Your task to perform on an android device: turn off notifications in google photos Image 0: 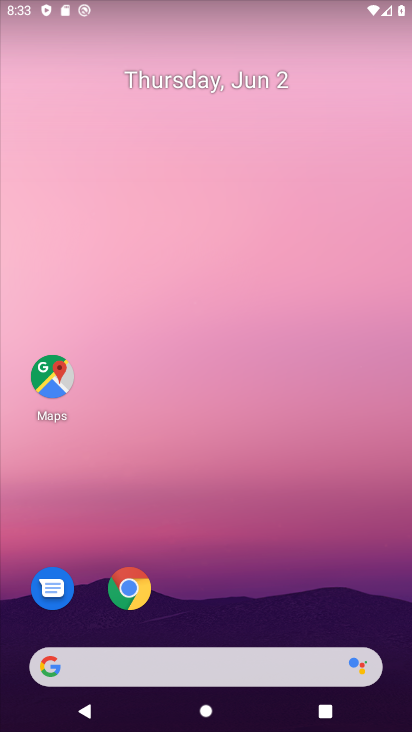
Step 0: drag from (249, 613) to (245, 281)
Your task to perform on an android device: turn off notifications in google photos Image 1: 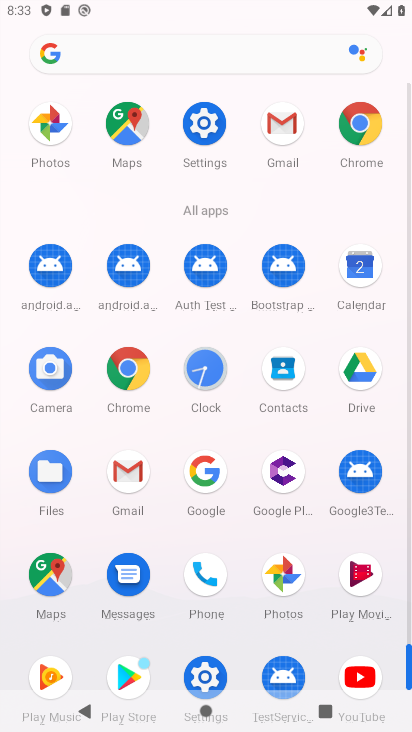
Step 1: click (274, 571)
Your task to perform on an android device: turn off notifications in google photos Image 2: 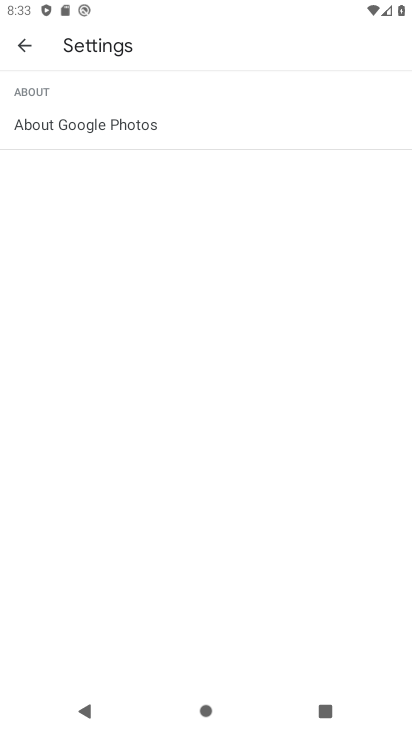
Step 2: click (14, 39)
Your task to perform on an android device: turn off notifications in google photos Image 3: 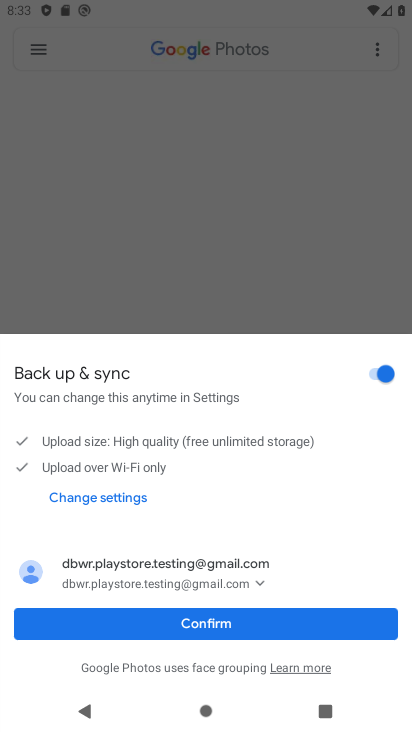
Step 3: click (30, 45)
Your task to perform on an android device: turn off notifications in google photos Image 4: 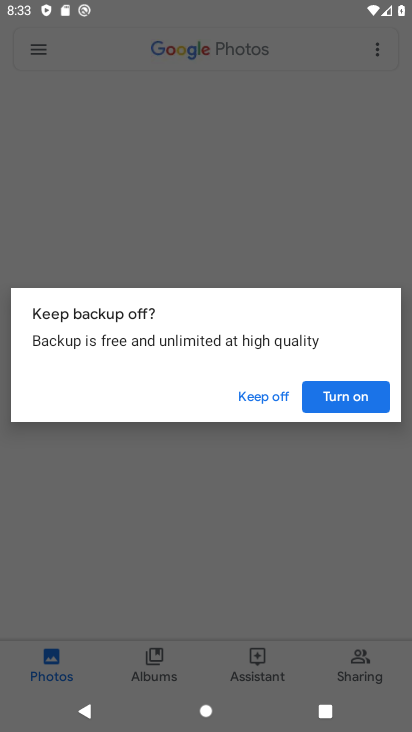
Step 4: click (334, 410)
Your task to perform on an android device: turn off notifications in google photos Image 5: 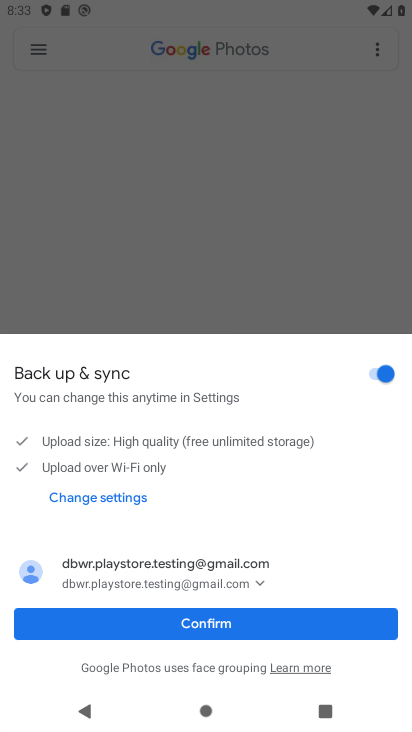
Step 5: click (272, 615)
Your task to perform on an android device: turn off notifications in google photos Image 6: 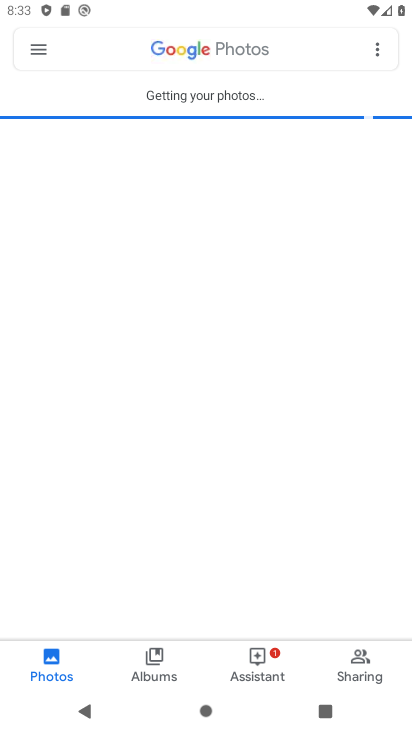
Step 6: click (33, 38)
Your task to perform on an android device: turn off notifications in google photos Image 7: 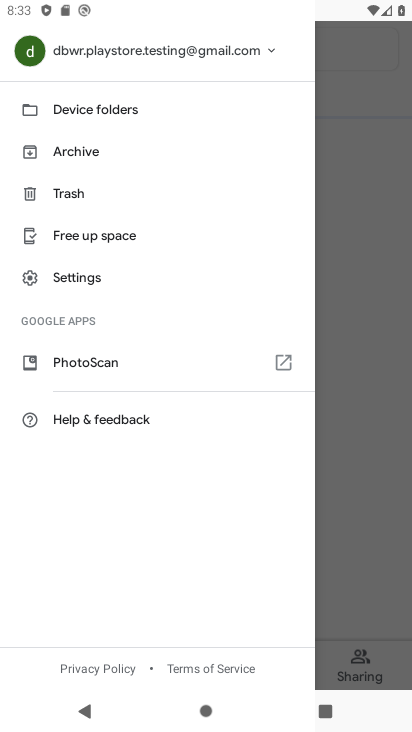
Step 7: click (81, 281)
Your task to perform on an android device: turn off notifications in google photos Image 8: 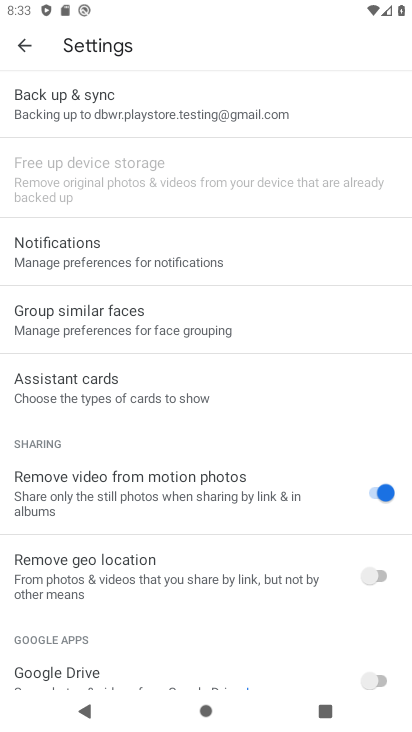
Step 8: click (91, 267)
Your task to perform on an android device: turn off notifications in google photos Image 9: 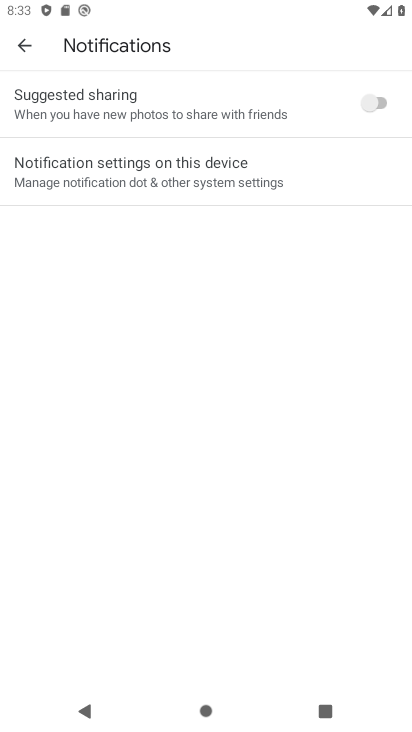
Step 9: click (91, 175)
Your task to perform on an android device: turn off notifications in google photos Image 10: 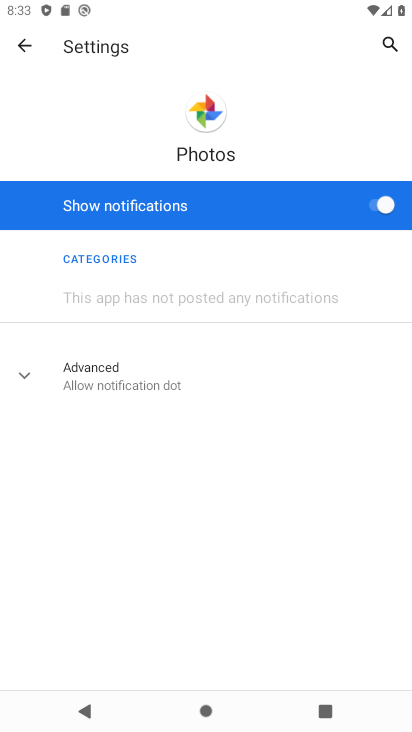
Step 10: click (388, 208)
Your task to perform on an android device: turn off notifications in google photos Image 11: 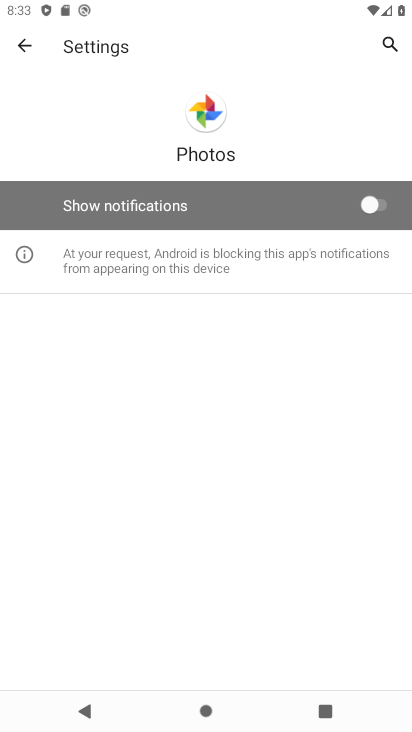
Step 11: task complete